Your task to perform on an android device: turn on the 12-hour format for clock Image 0: 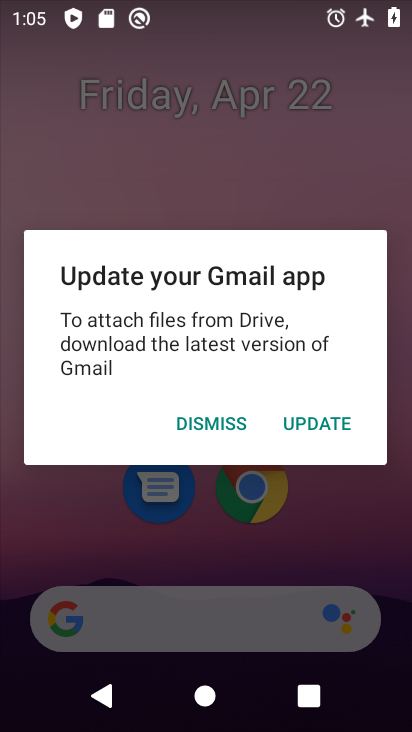
Step 0: press home button
Your task to perform on an android device: turn on the 12-hour format for clock Image 1: 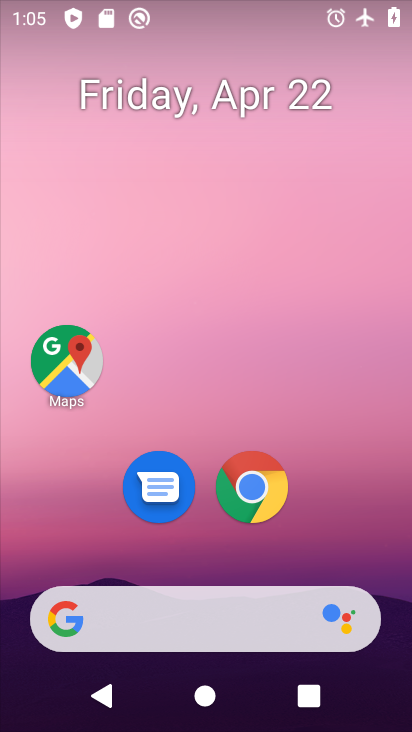
Step 1: drag from (193, 506) to (184, 156)
Your task to perform on an android device: turn on the 12-hour format for clock Image 2: 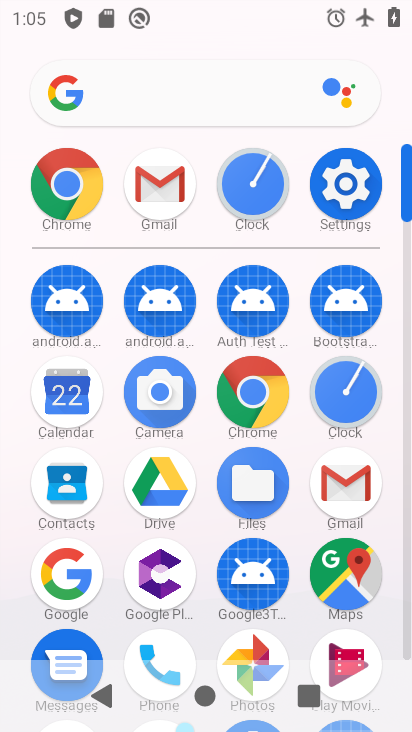
Step 2: click (364, 383)
Your task to perform on an android device: turn on the 12-hour format for clock Image 3: 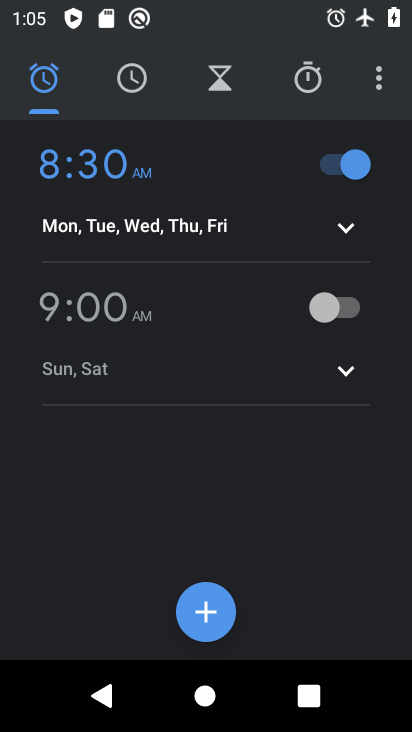
Step 3: click (370, 76)
Your task to perform on an android device: turn on the 12-hour format for clock Image 4: 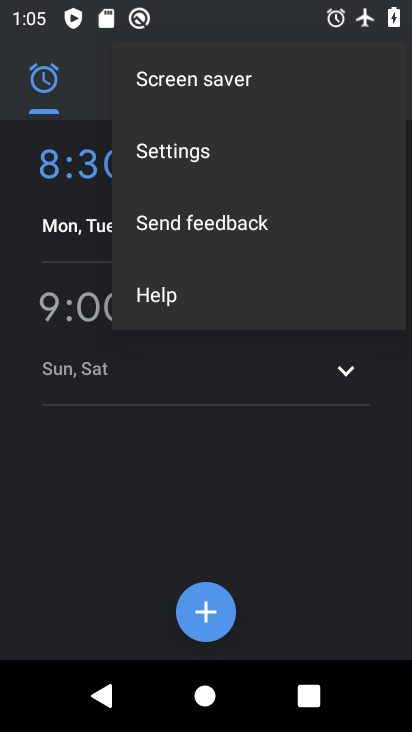
Step 4: click (165, 162)
Your task to perform on an android device: turn on the 12-hour format for clock Image 5: 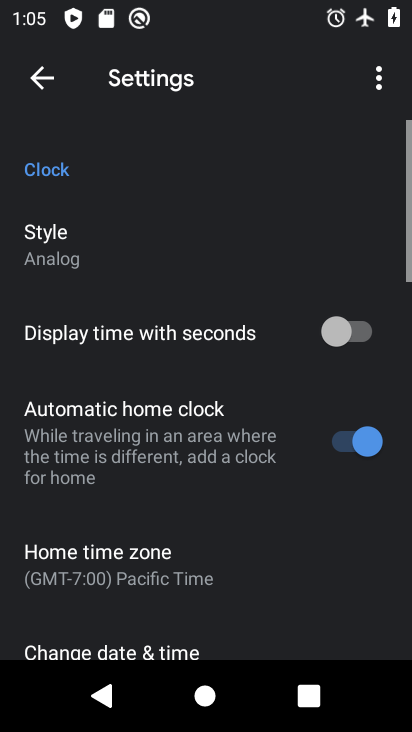
Step 5: drag from (207, 573) to (214, 227)
Your task to perform on an android device: turn on the 12-hour format for clock Image 6: 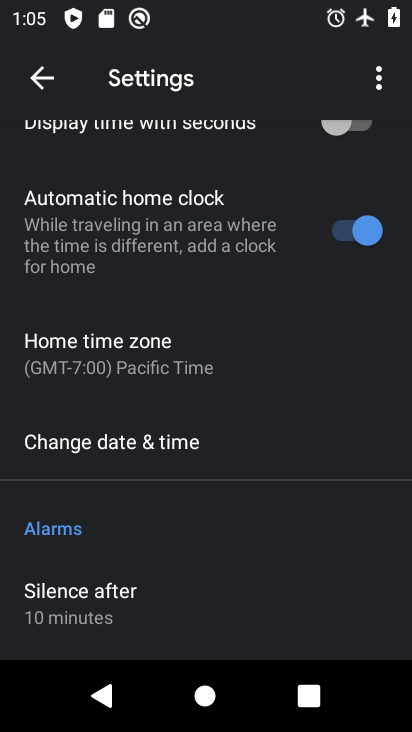
Step 6: click (167, 437)
Your task to perform on an android device: turn on the 12-hour format for clock Image 7: 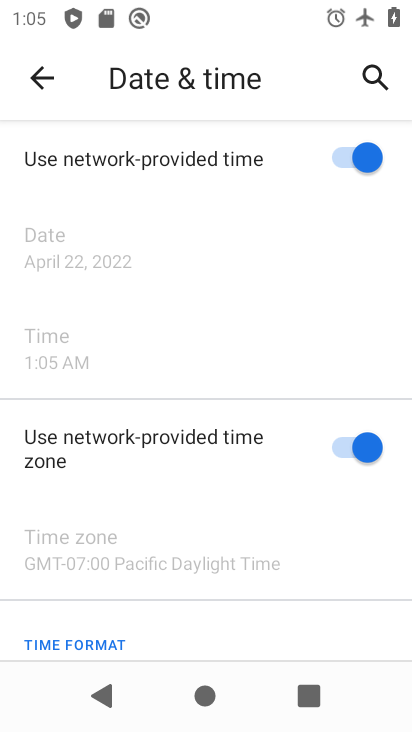
Step 7: task complete